Your task to perform on an android device: make emails show in primary in the gmail app Image 0: 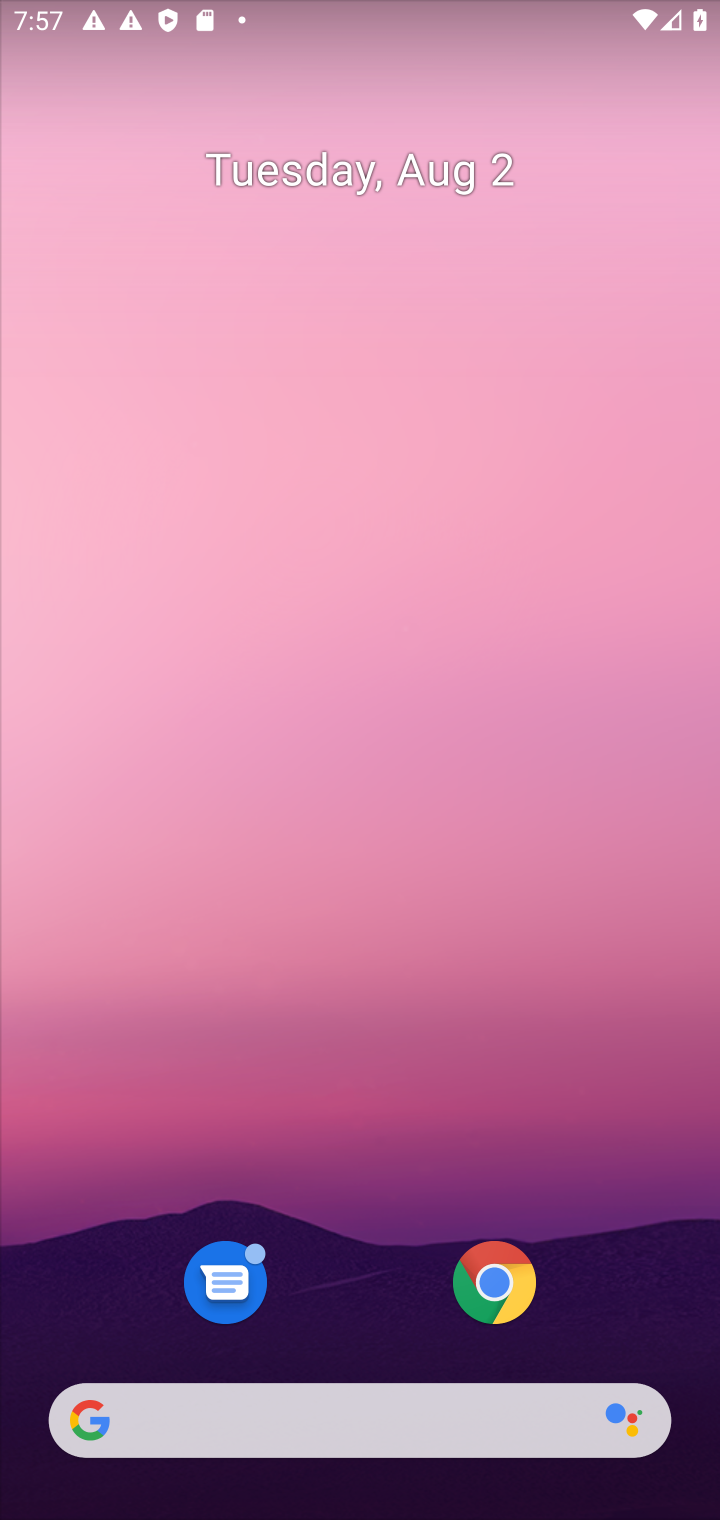
Step 0: drag from (403, 1356) to (461, 53)
Your task to perform on an android device: make emails show in primary in the gmail app Image 1: 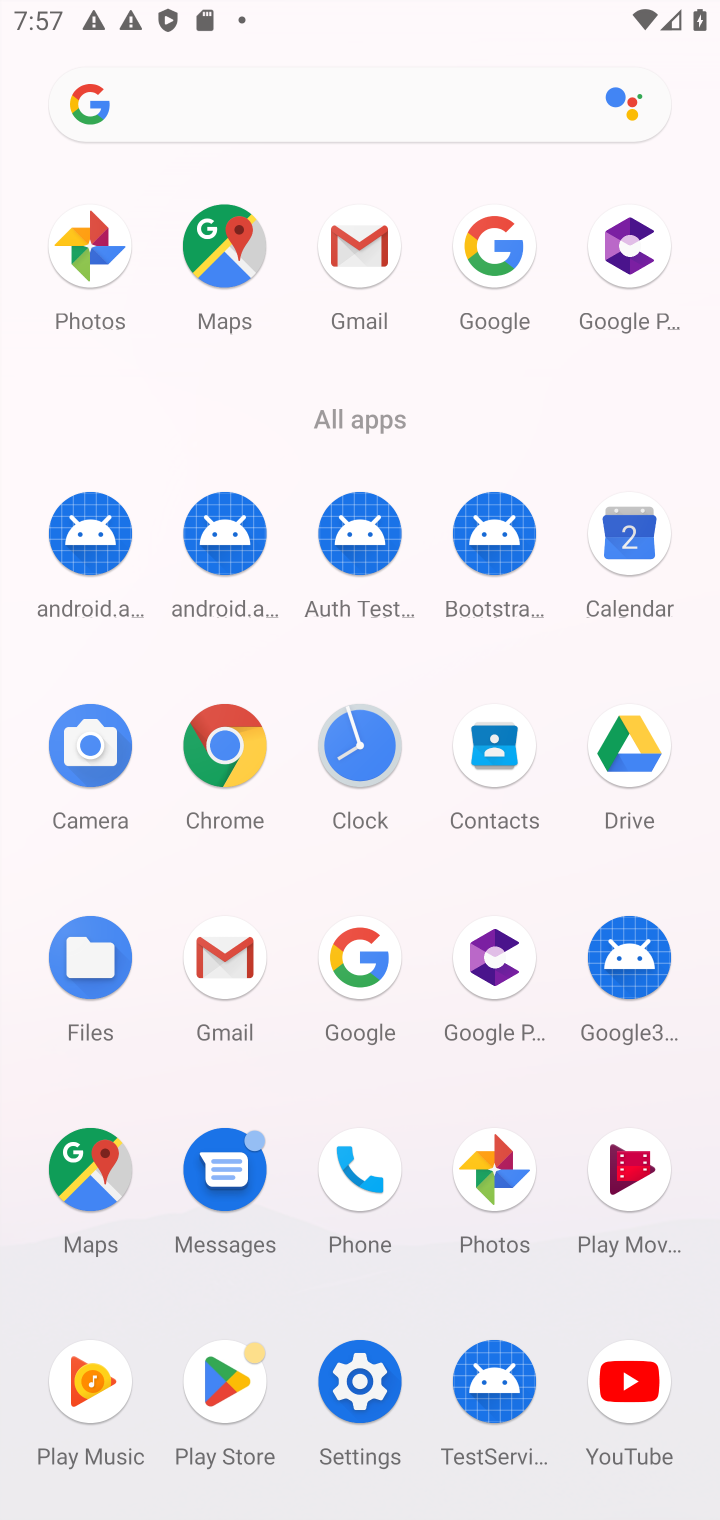
Step 1: click (217, 982)
Your task to perform on an android device: make emails show in primary in the gmail app Image 2: 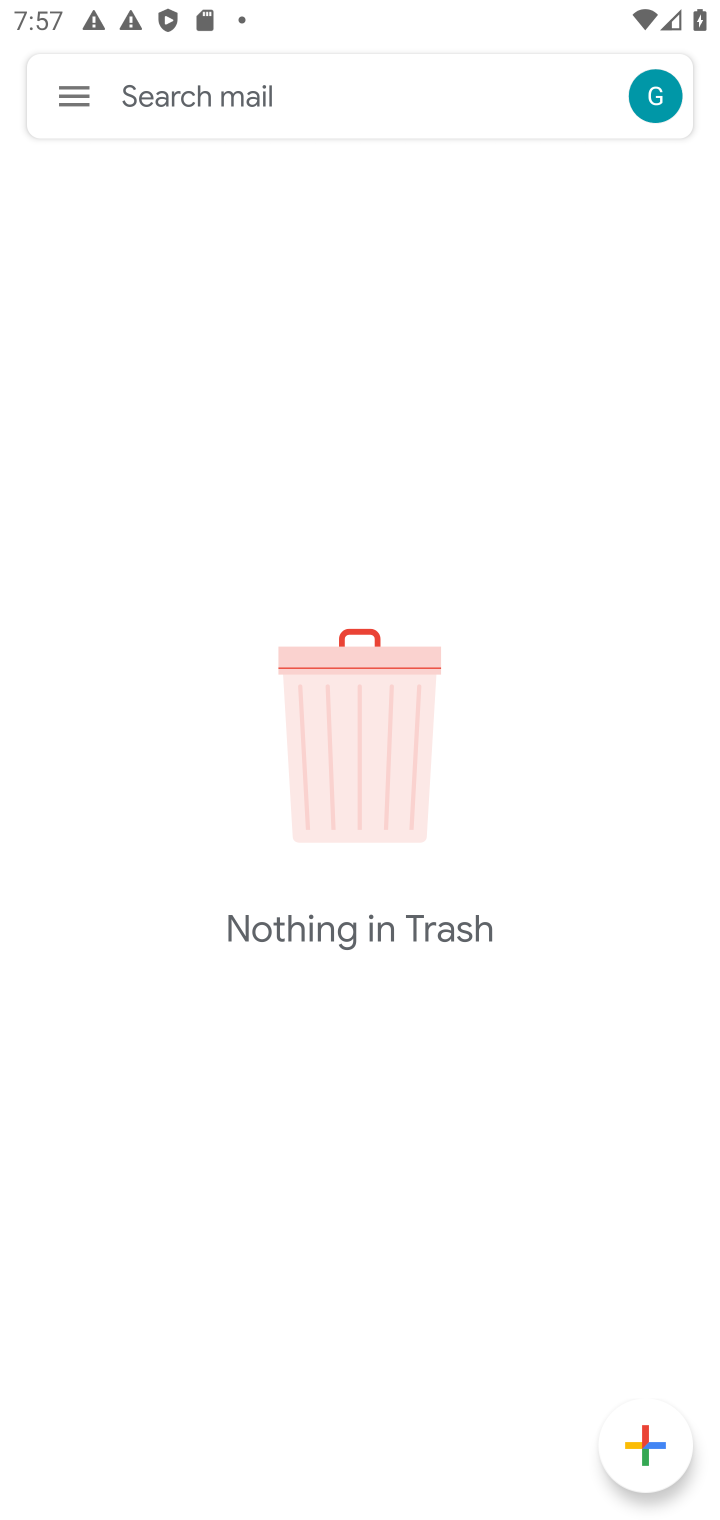
Step 2: click (65, 84)
Your task to perform on an android device: make emails show in primary in the gmail app Image 3: 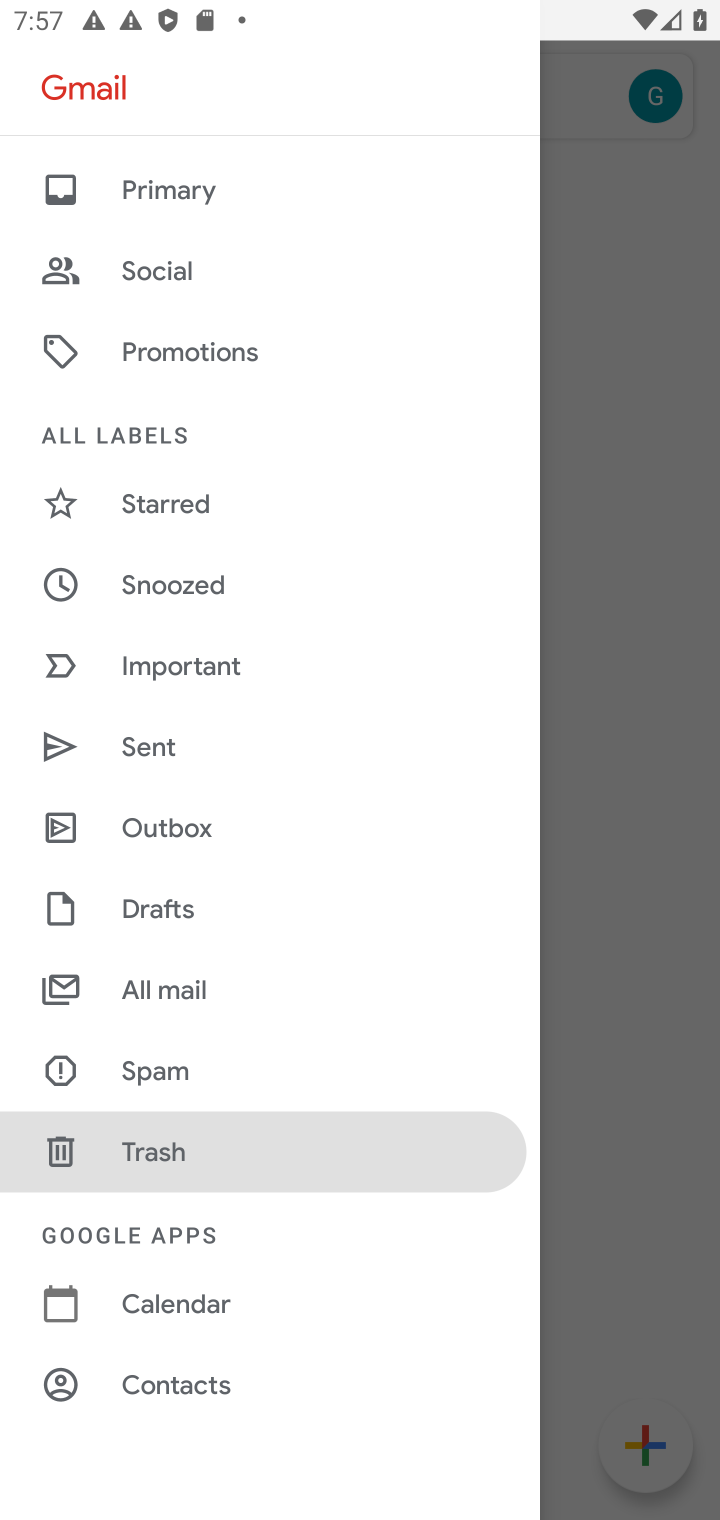
Step 3: click (120, 186)
Your task to perform on an android device: make emails show in primary in the gmail app Image 4: 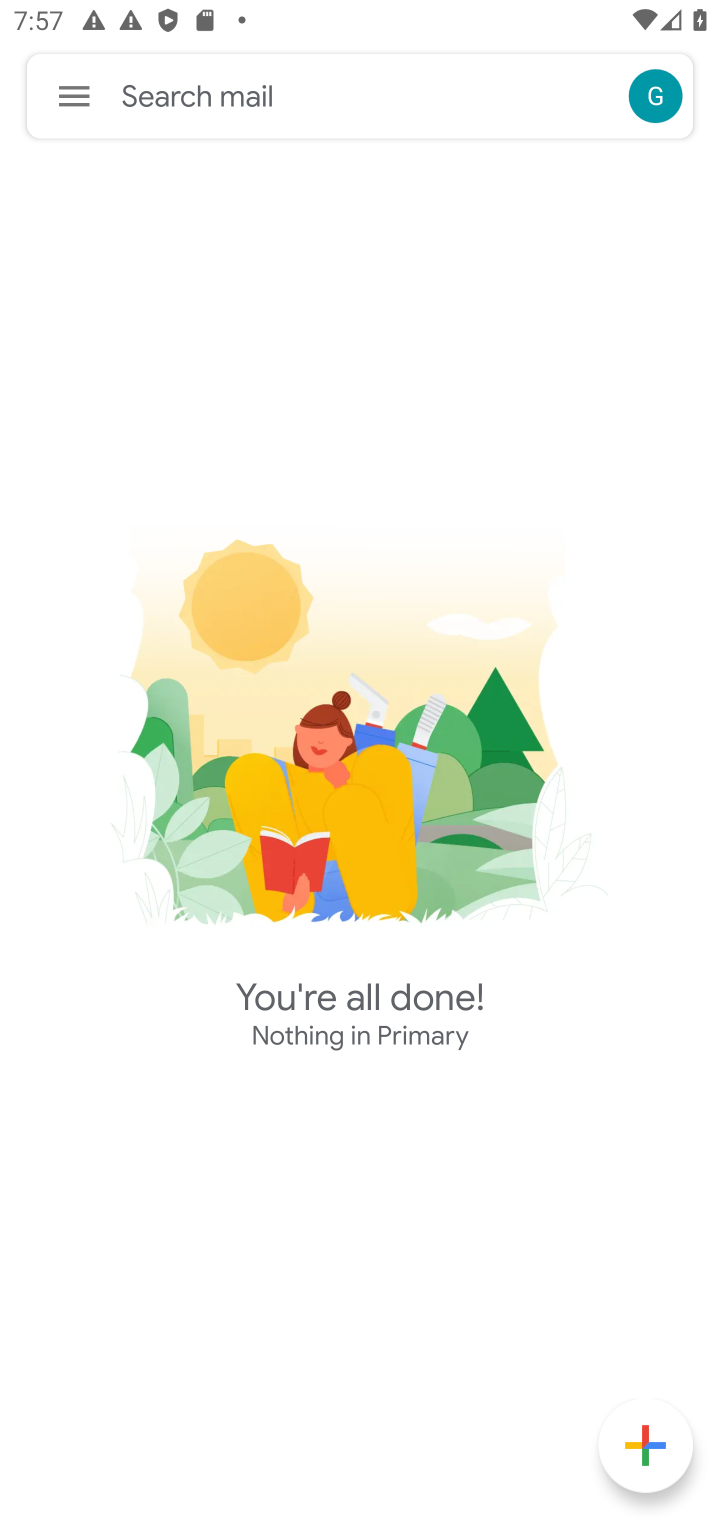
Step 4: click (49, 92)
Your task to perform on an android device: make emails show in primary in the gmail app Image 5: 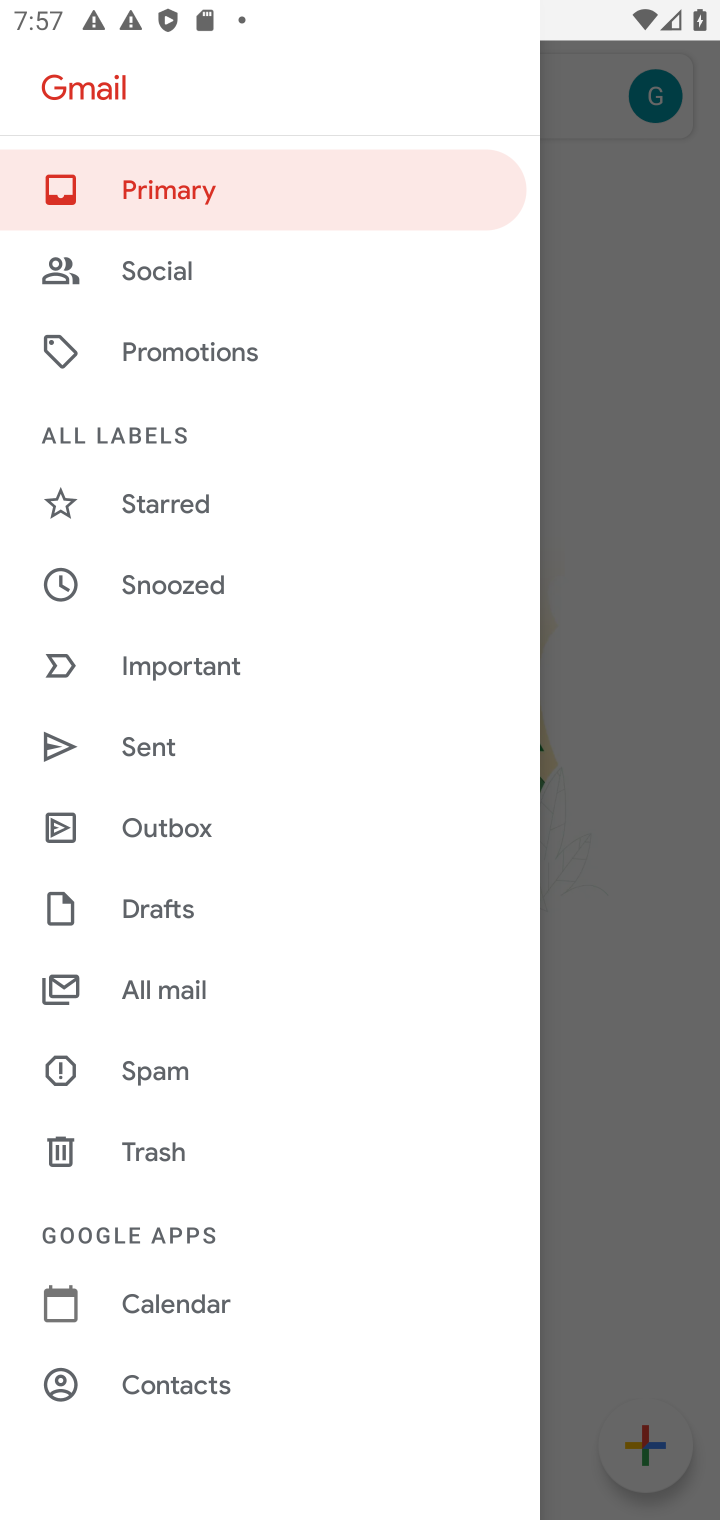
Step 5: click (157, 205)
Your task to perform on an android device: make emails show in primary in the gmail app Image 6: 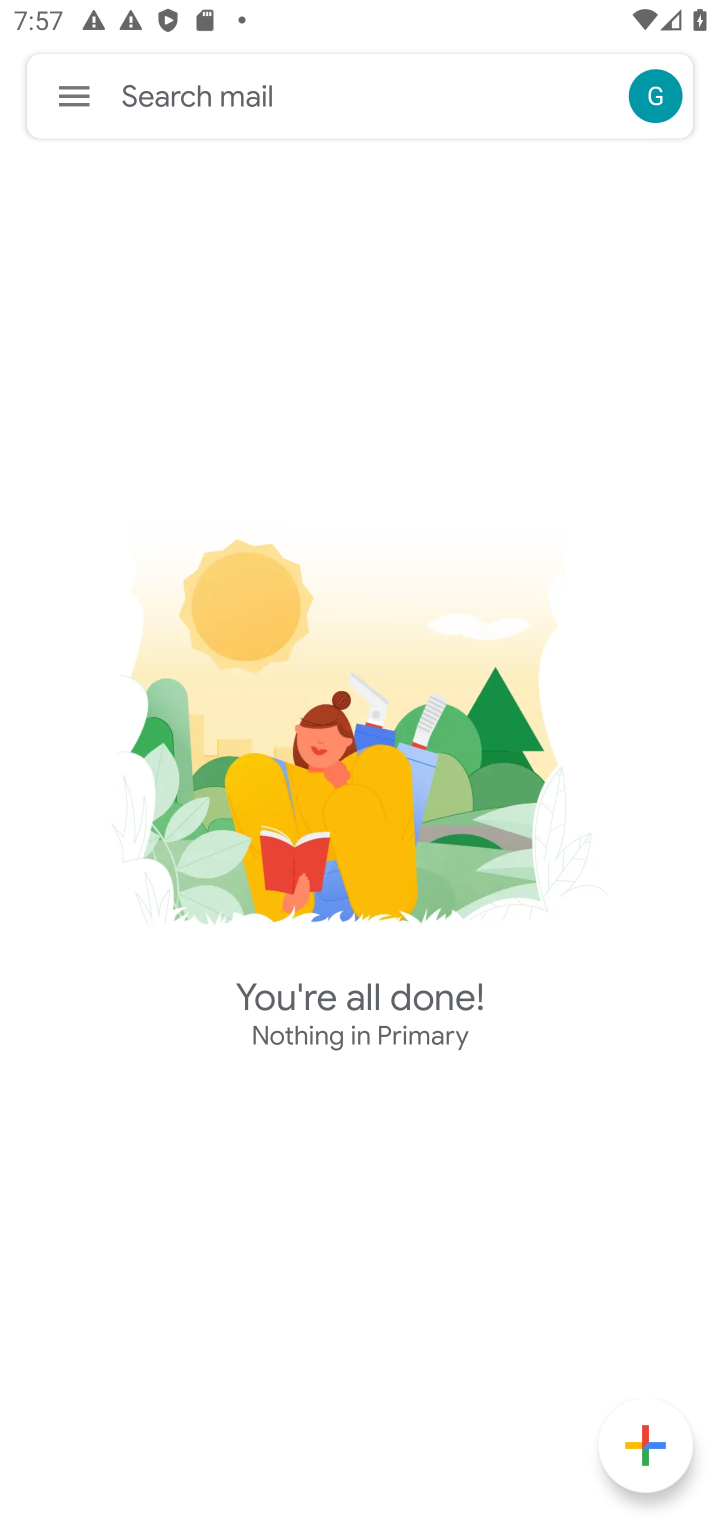
Step 6: task complete